Your task to perform on an android device: toggle show notifications on the lock screen Image 0: 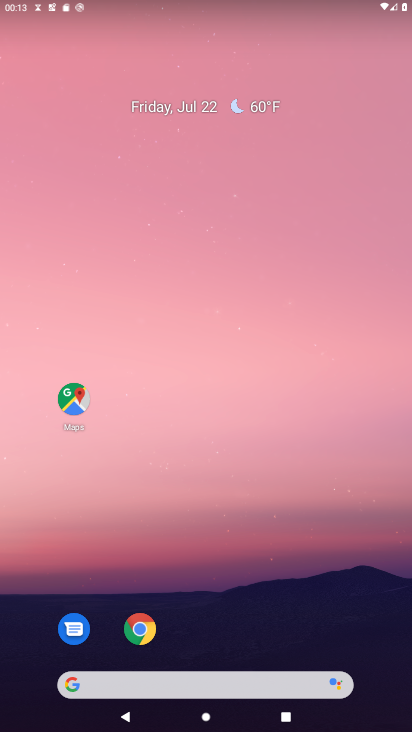
Step 0: drag from (193, 601) to (200, 173)
Your task to perform on an android device: toggle show notifications on the lock screen Image 1: 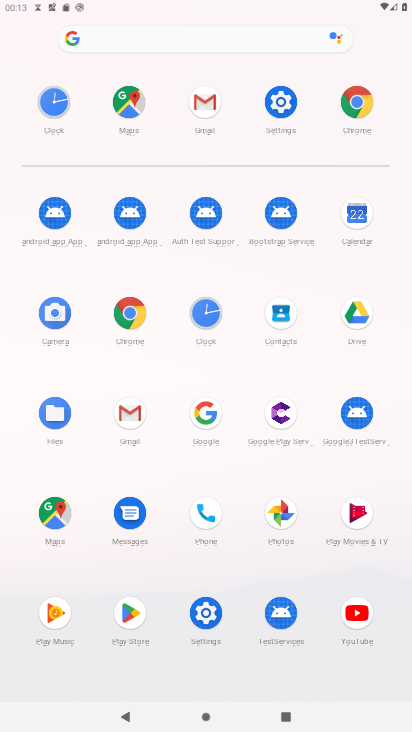
Step 1: click (288, 99)
Your task to perform on an android device: toggle show notifications on the lock screen Image 2: 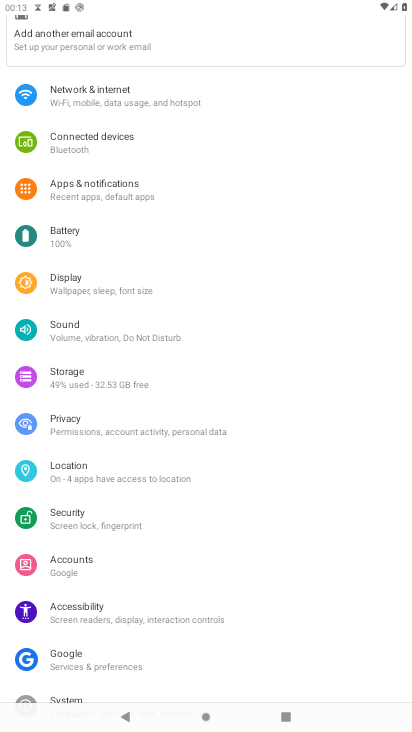
Step 2: click (94, 195)
Your task to perform on an android device: toggle show notifications on the lock screen Image 3: 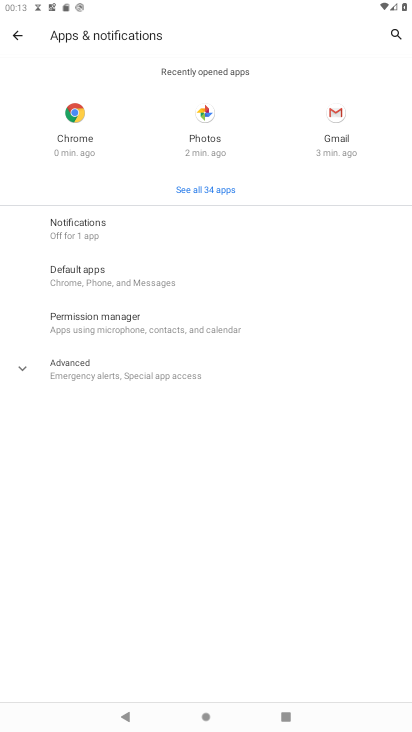
Step 3: click (104, 240)
Your task to perform on an android device: toggle show notifications on the lock screen Image 4: 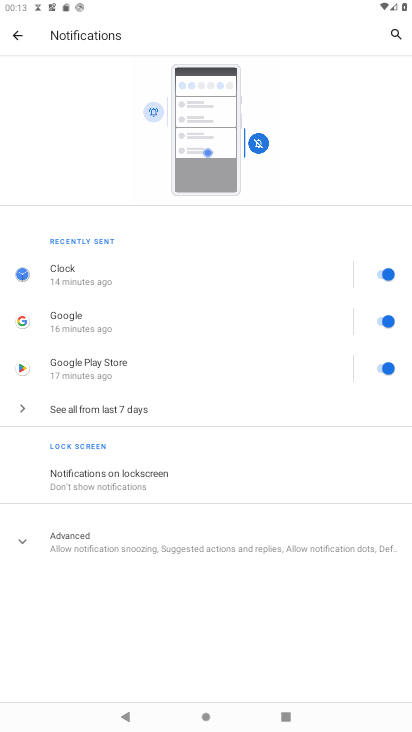
Step 4: click (162, 471)
Your task to perform on an android device: toggle show notifications on the lock screen Image 5: 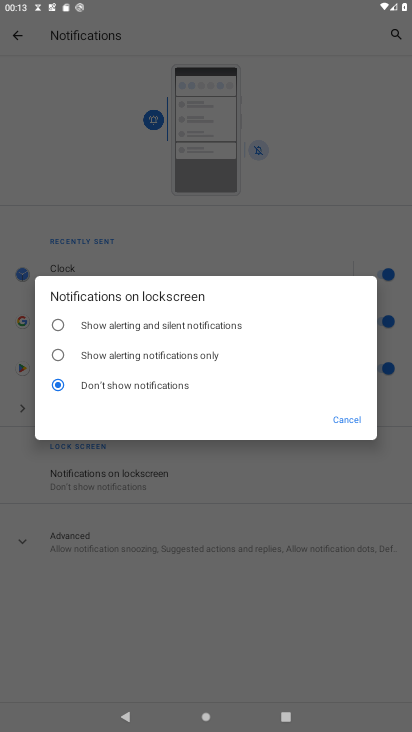
Step 5: click (97, 313)
Your task to perform on an android device: toggle show notifications on the lock screen Image 6: 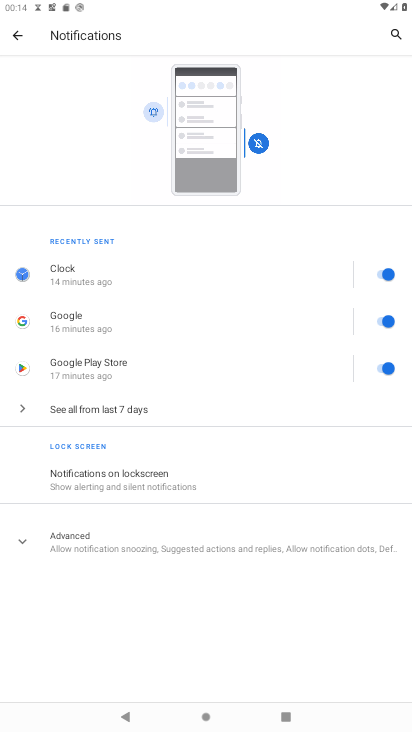
Step 6: click (123, 474)
Your task to perform on an android device: toggle show notifications on the lock screen Image 7: 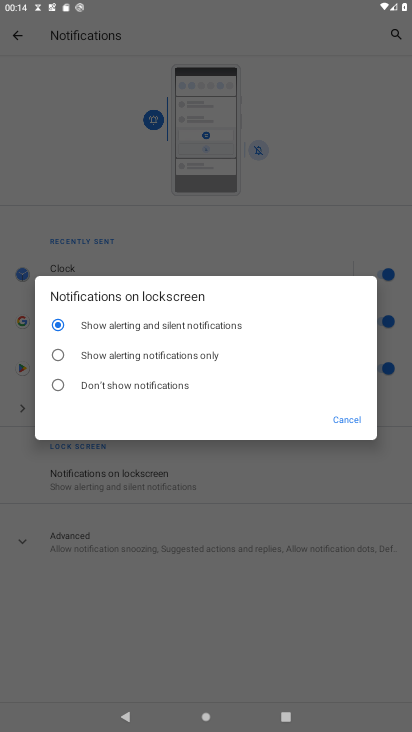
Step 7: task complete